Your task to perform on an android device: set the stopwatch Image 0: 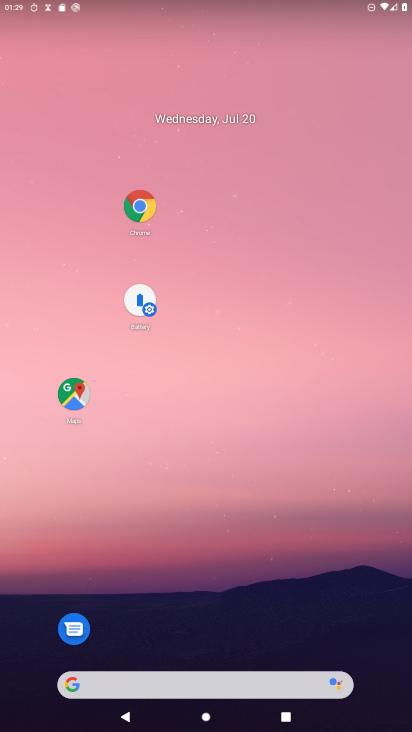
Step 0: drag from (211, 606) to (260, 147)
Your task to perform on an android device: set the stopwatch Image 1: 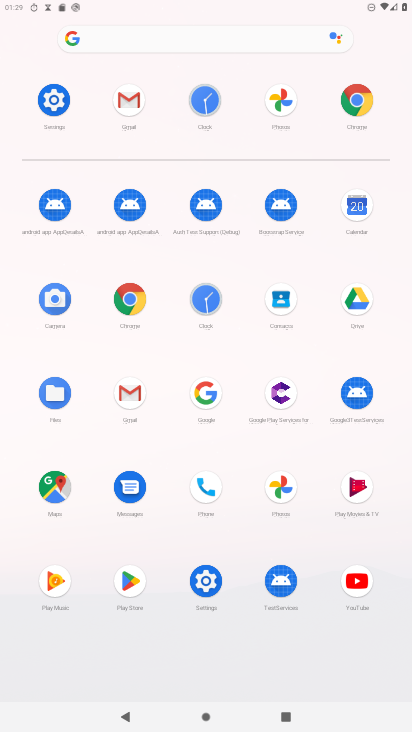
Step 1: click (203, 290)
Your task to perform on an android device: set the stopwatch Image 2: 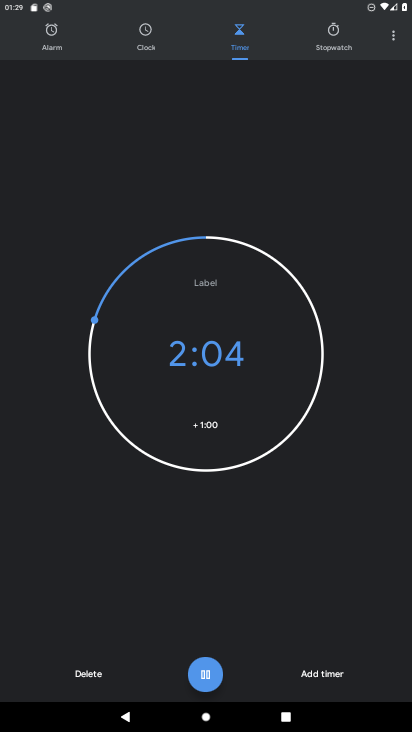
Step 2: click (339, 42)
Your task to perform on an android device: set the stopwatch Image 3: 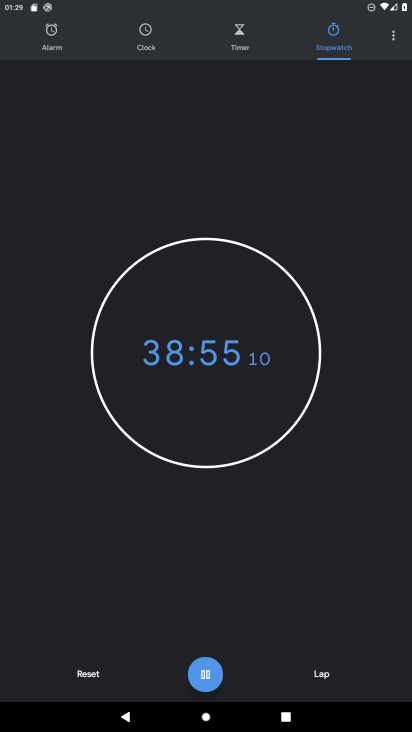
Step 3: click (90, 670)
Your task to perform on an android device: set the stopwatch Image 4: 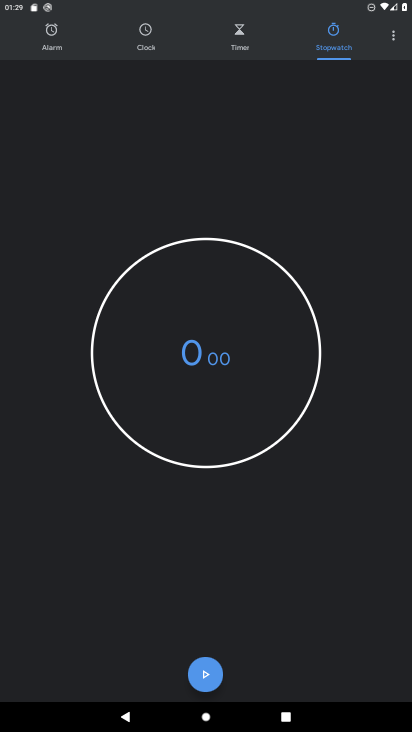
Step 4: click (196, 670)
Your task to perform on an android device: set the stopwatch Image 5: 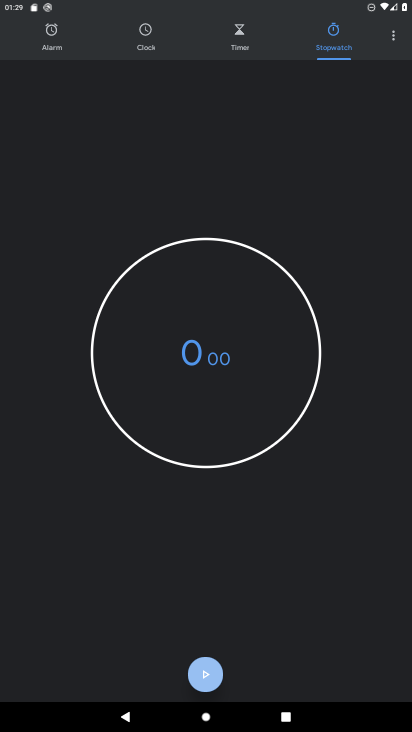
Step 5: drag from (248, 621) to (252, 342)
Your task to perform on an android device: set the stopwatch Image 6: 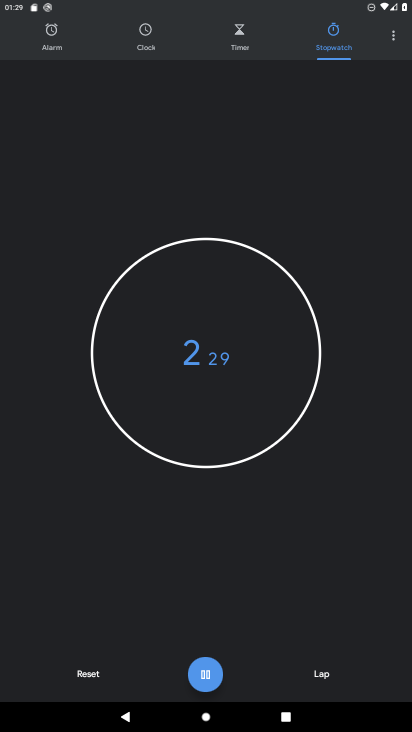
Step 6: drag from (258, 445) to (289, 253)
Your task to perform on an android device: set the stopwatch Image 7: 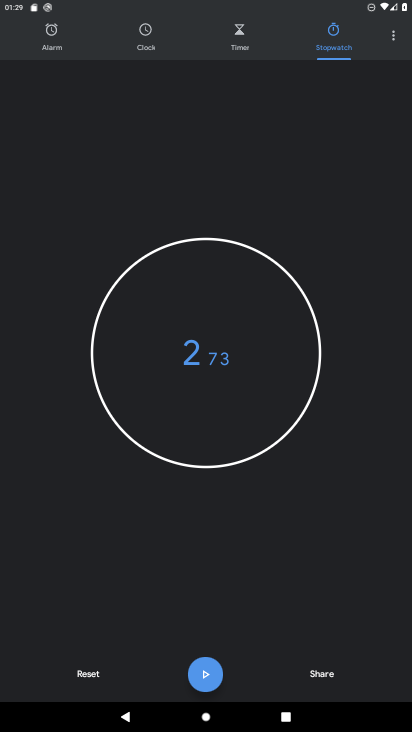
Step 7: drag from (135, 564) to (224, 349)
Your task to perform on an android device: set the stopwatch Image 8: 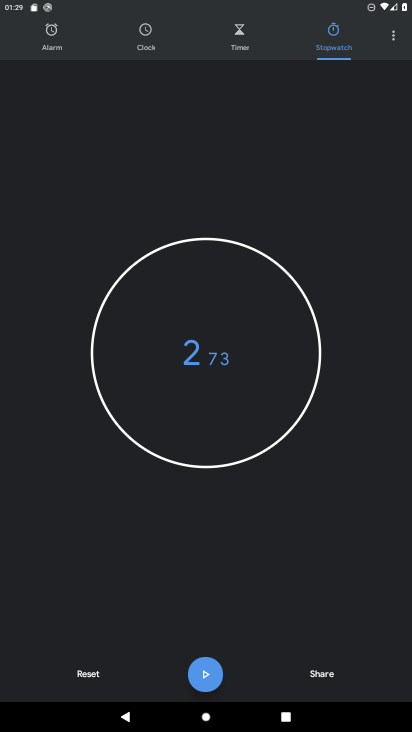
Step 8: click (190, 669)
Your task to perform on an android device: set the stopwatch Image 9: 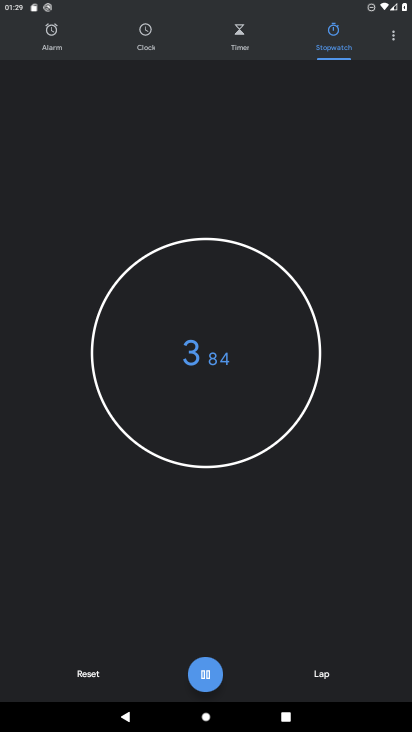
Step 9: task complete